Your task to perform on an android device: turn notification dots on Image 0: 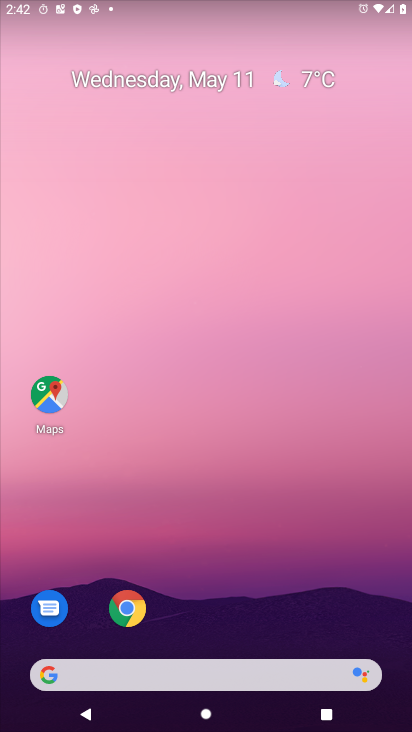
Step 0: drag from (246, 590) to (226, 61)
Your task to perform on an android device: turn notification dots on Image 1: 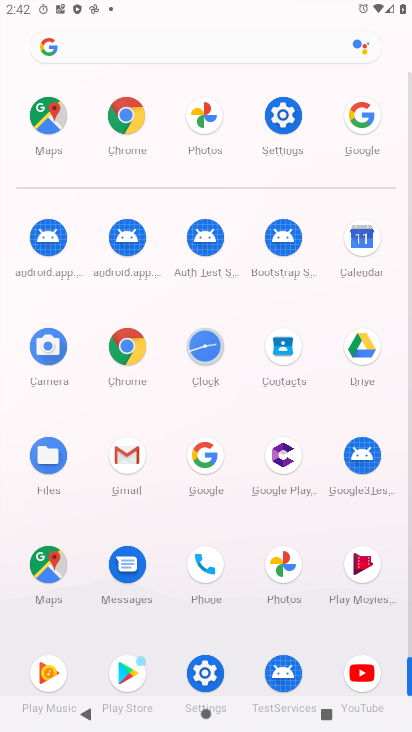
Step 1: click (285, 120)
Your task to perform on an android device: turn notification dots on Image 2: 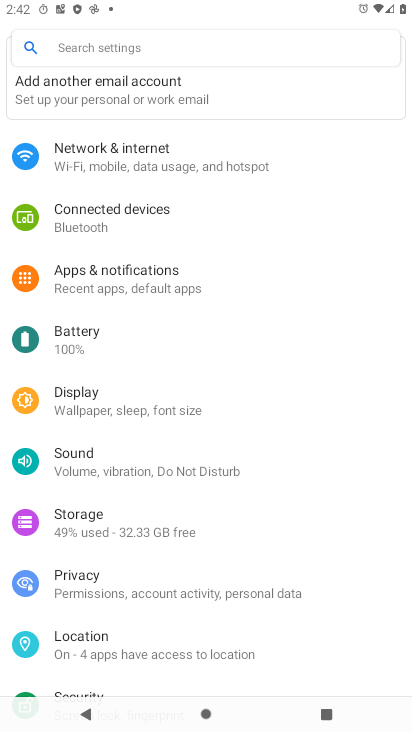
Step 2: click (225, 194)
Your task to perform on an android device: turn notification dots on Image 3: 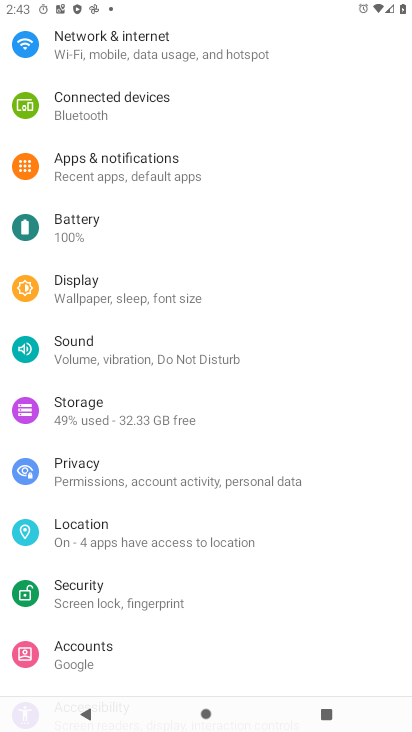
Step 3: drag from (234, 123) to (245, 312)
Your task to perform on an android device: turn notification dots on Image 4: 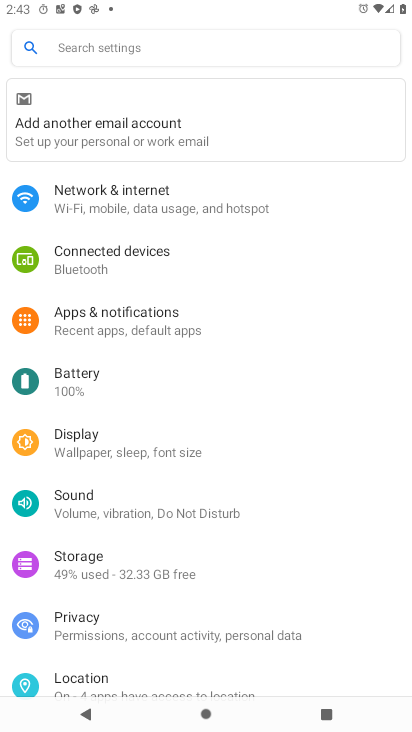
Step 4: drag from (192, 524) to (186, 313)
Your task to perform on an android device: turn notification dots on Image 5: 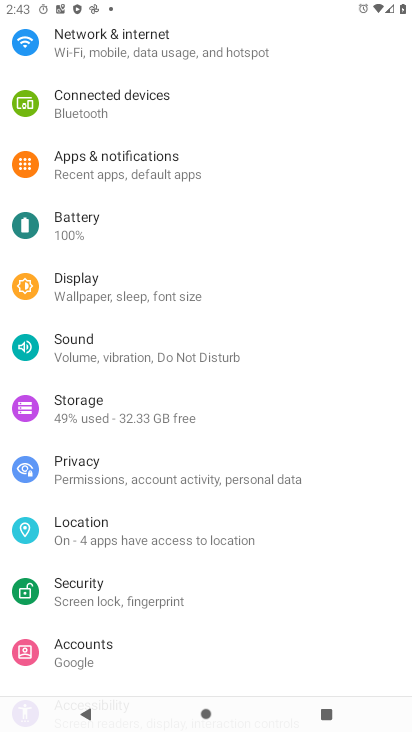
Step 5: click (136, 166)
Your task to perform on an android device: turn notification dots on Image 6: 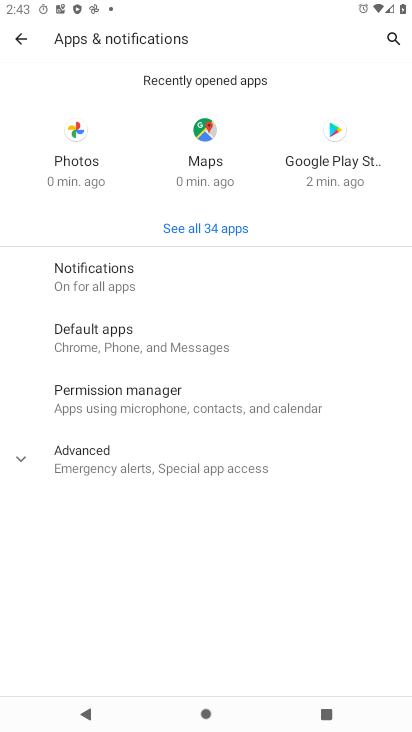
Step 6: click (82, 466)
Your task to perform on an android device: turn notification dots on Image 7: 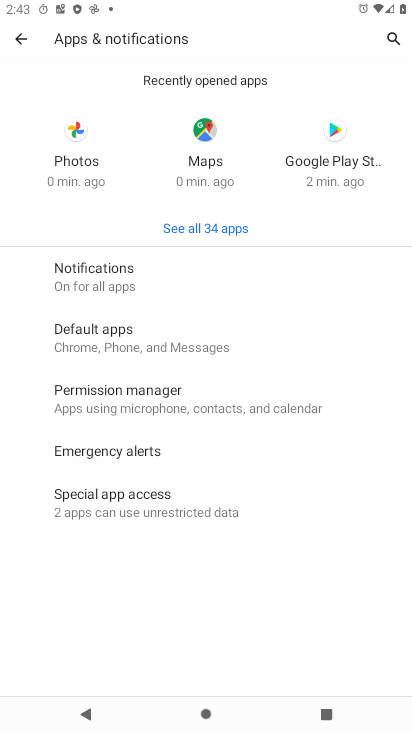
Step 7: drag from (269, 488) to (246, 272)
Your task to perform on an android device: turn notification dots on Image 8: 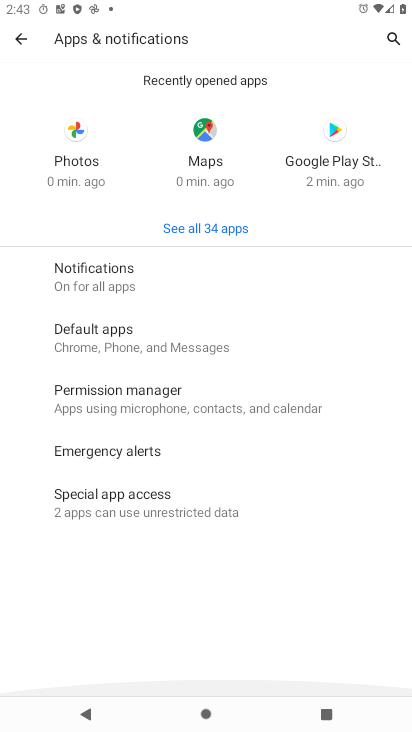
Step 8: click (99, 287)
Your task to perform on an android device: turn notification dots on Image 9: 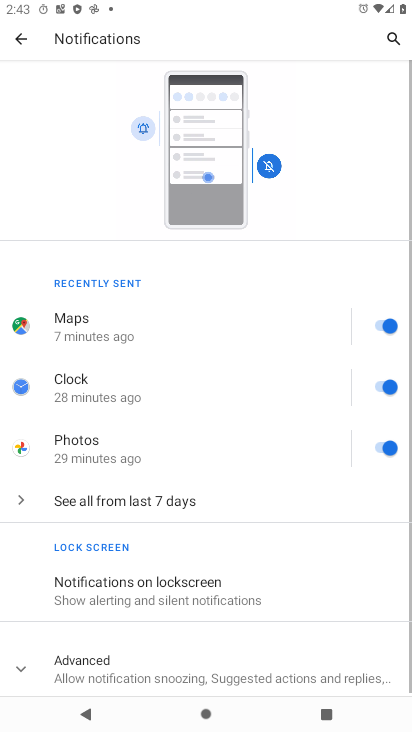
Step 9: drag from (248, 567) to (239, 264)
Your task to perform on an android device: turn notification dots on Image 10: 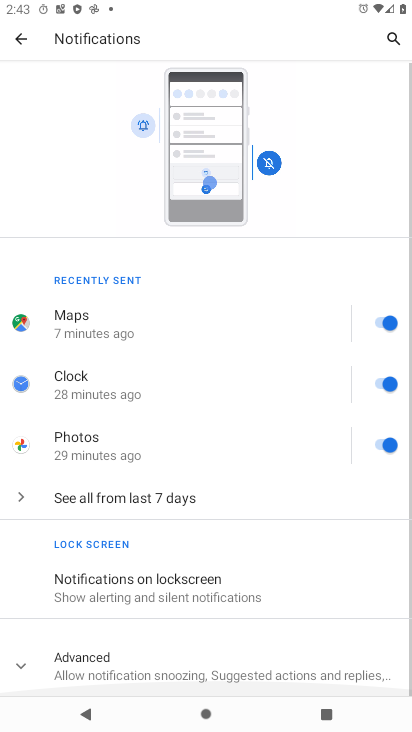
Step 10: click (165, 661)
Your task to perform on an android device: turn notification dots on Image 11: 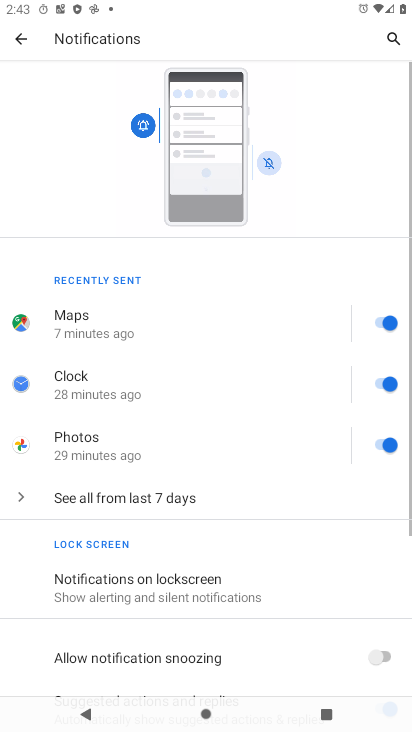
Step 11: task complete